Your task to perform on an android device: Search for the best-rated coffee table on Crate & Barrel Image 0: 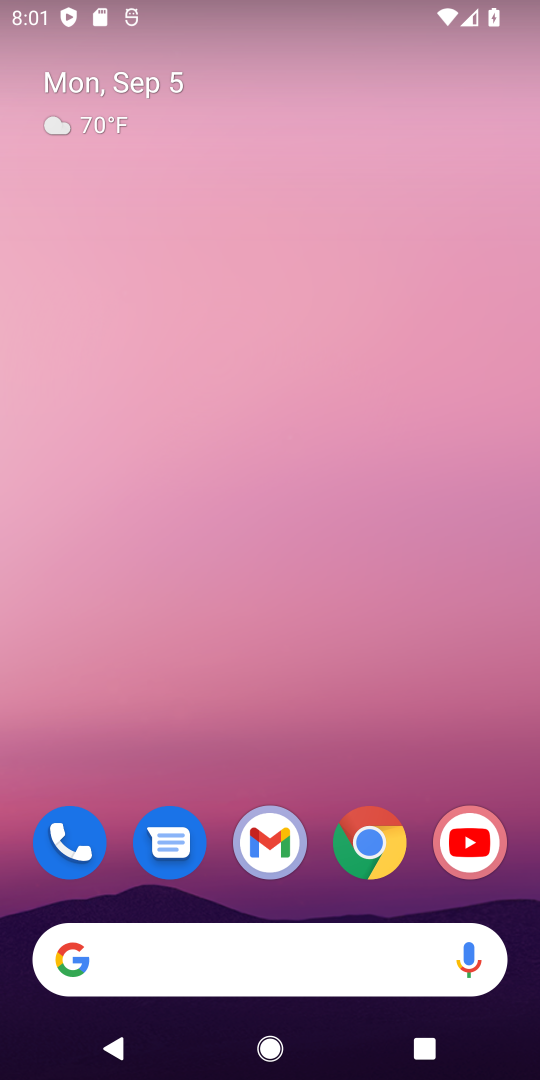
Step 0: click (369, 846)
Your task to perform on an android device: Search for the best-rated coffee table on Crate & Barrel Image 1: 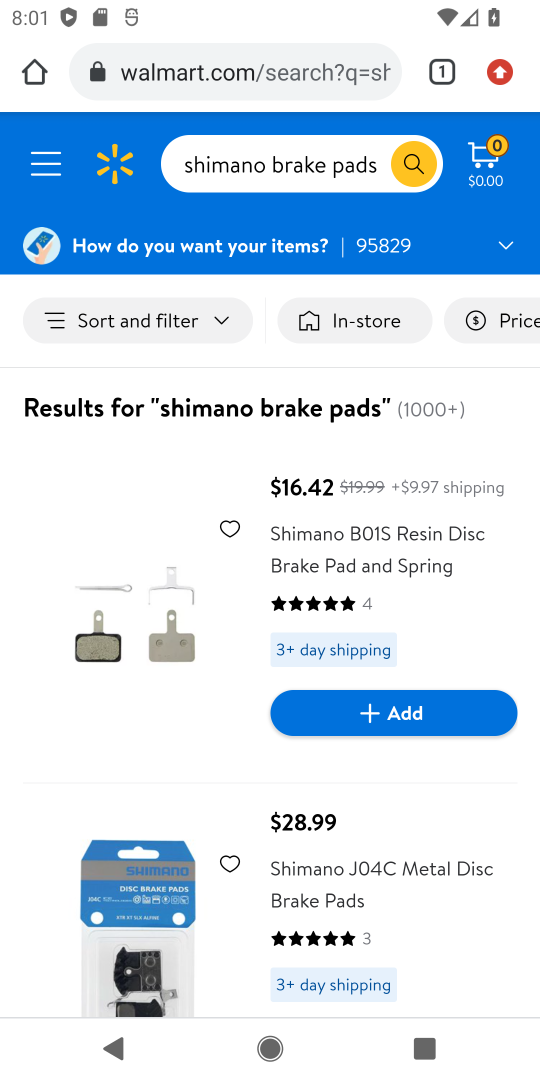
Step 1: click (332, 78)
Your task to perform on an android device: Search for the best-rated coffee table on Crate & Barrel Image 2: 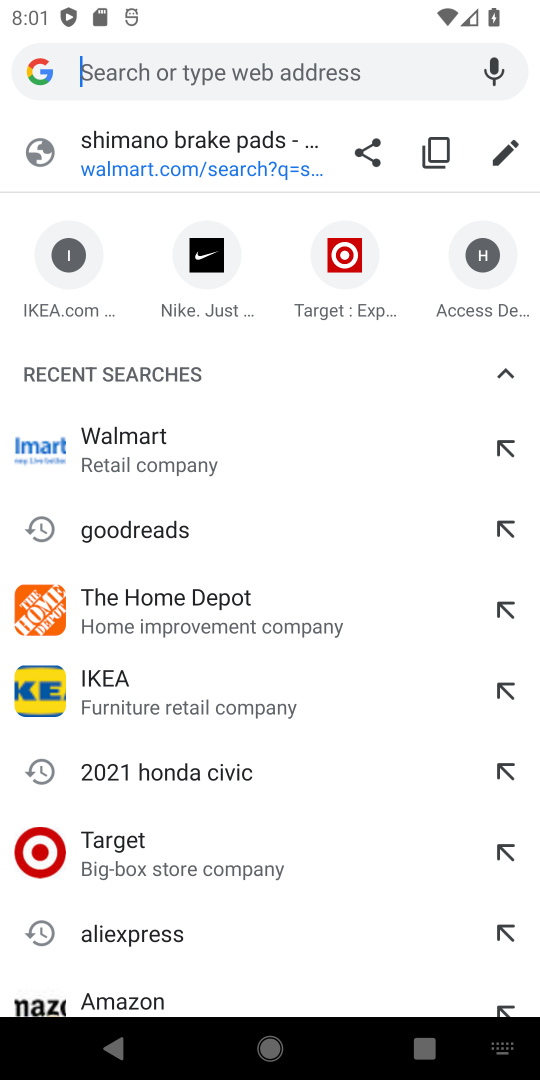
Step 2: type "Crate & Barrel"
Your task to perform on an android device: Search for the best-rated coffee table on Crate & Barrel Image 3: 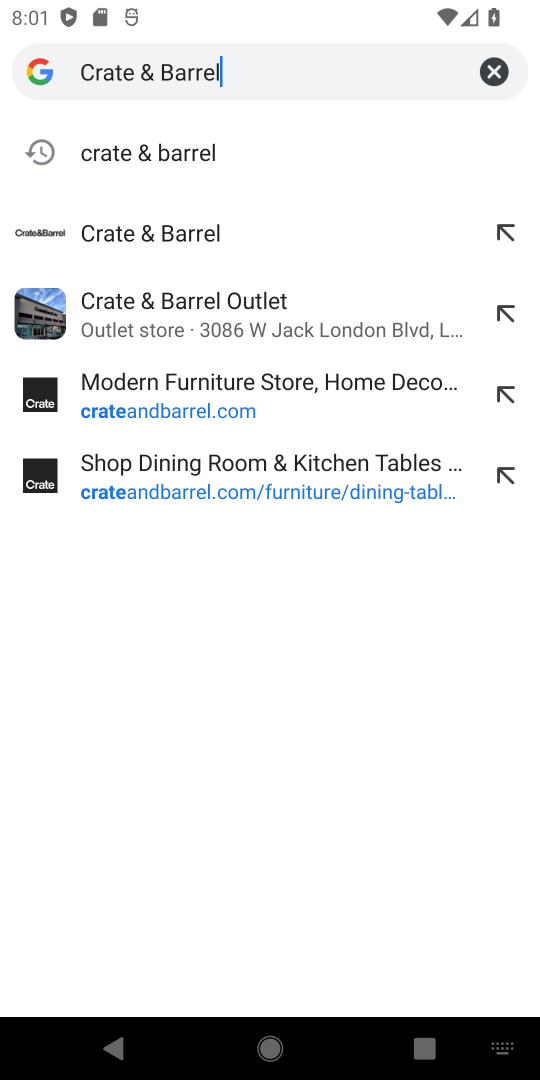
Step 3: click (223, 243)
Your task to perform on an android device: Search for the best-rated coffee table on Crate & Barrel Image 4: 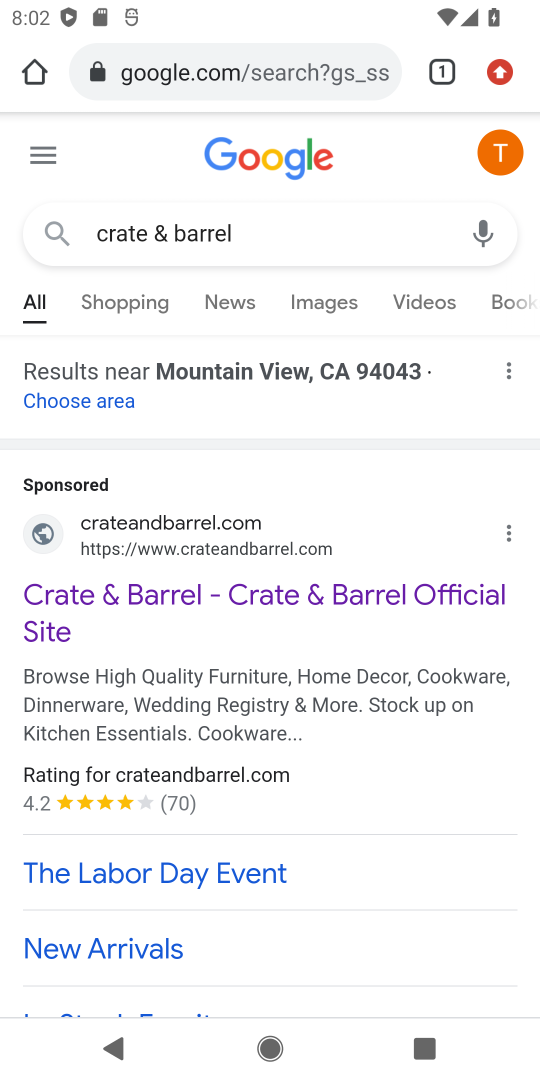
Step 4: click (133, 646)
Your task to perform on an android device: Search for the best-rated coffee table on Crate & Barrel Image 5: 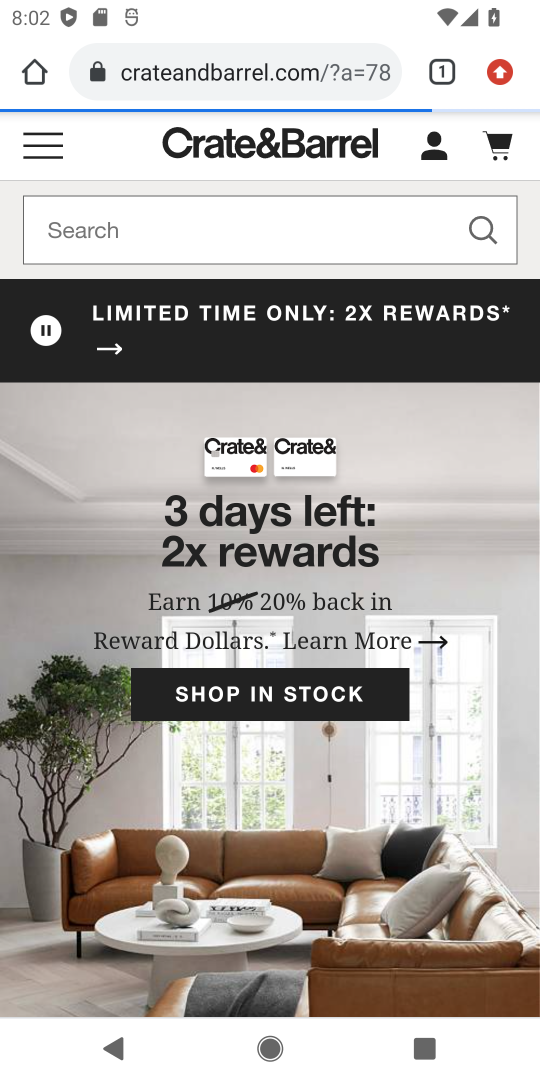
Step 5: click (199, 238)
Your task to perform on an android device: Search for the best-rated coffee table on Crate & Barrel Image 6: 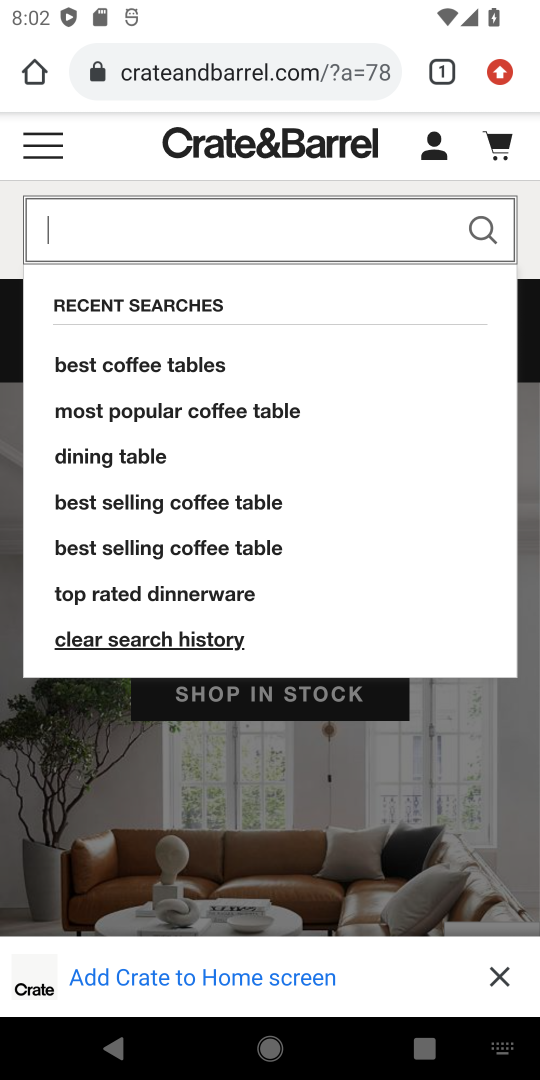
Step 6: type "best-rated coffee table"
Your task to perform on an android device: Search for the best-rated coffee table on Crate & Barrel Image 7: 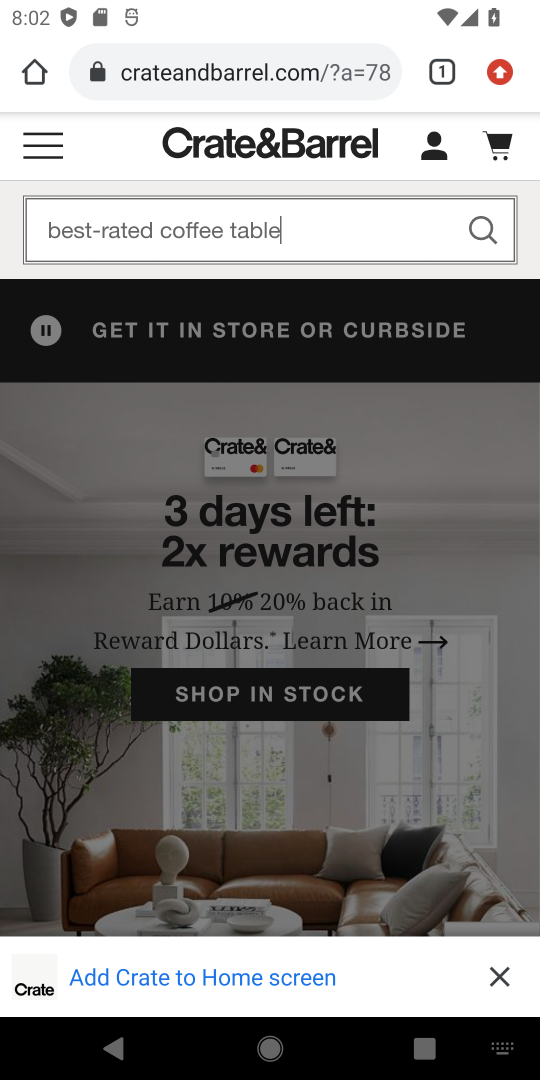
Step 7: click (478, 235)
Your task to perform on an android device: Search for the best-rated coffee table on Crate & Barrel Image 8: 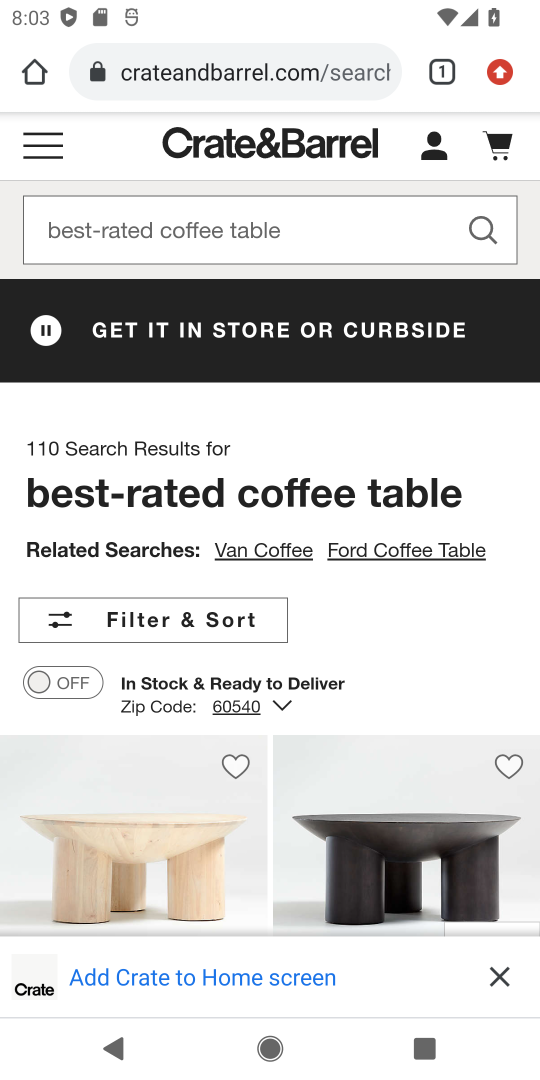
Step 8: task complete